Your task to perform on an android device: add a label to a message in the gmail app Image 0: 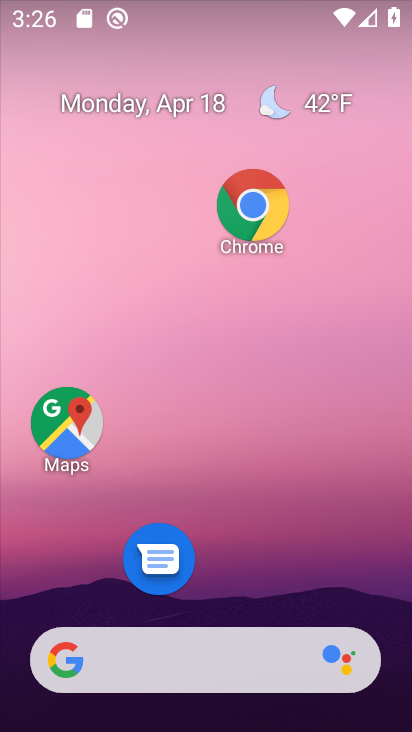
Step 0: drag from (261, 450) to (301, 305)
Your task to perform on an android device: add a label to a message in the gmail app Image 1: 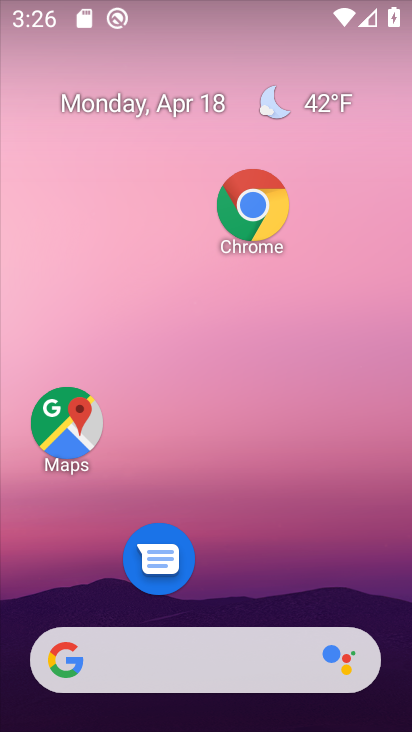
Step 1: drag from (245, 447) to (263, 175)
Your task to perform on an android device: add a label to a message in the gmail app Image 2: 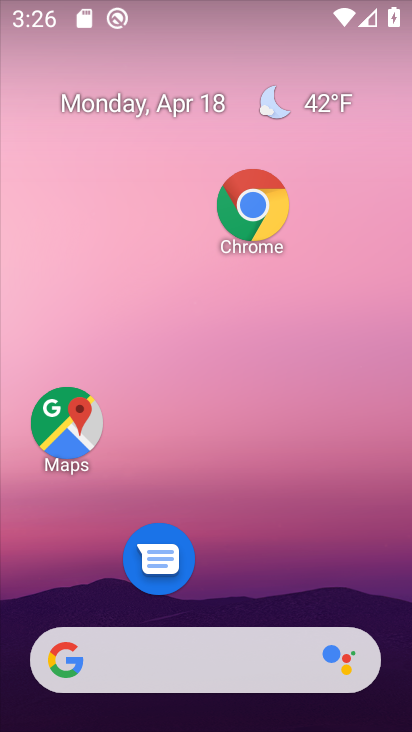
Step 2: drag from (72, 463) to (98, 164)
Your task to perform on an android device: add a label to a message in the gmail app Image 3: 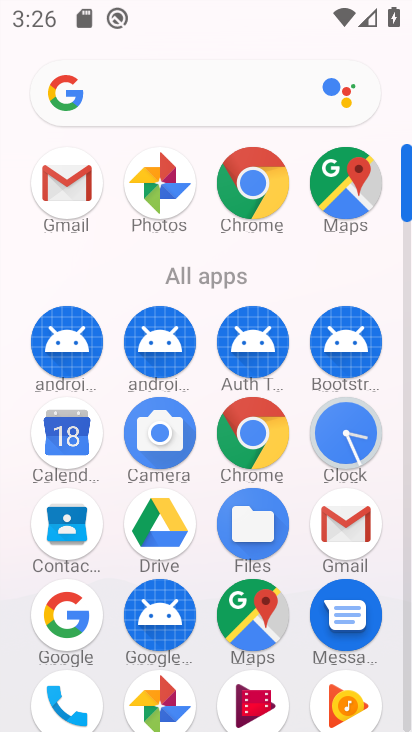
Step 3: click (54, 178)
Your task to perform on an android device: add a label to a message in the gmail app Image 4: 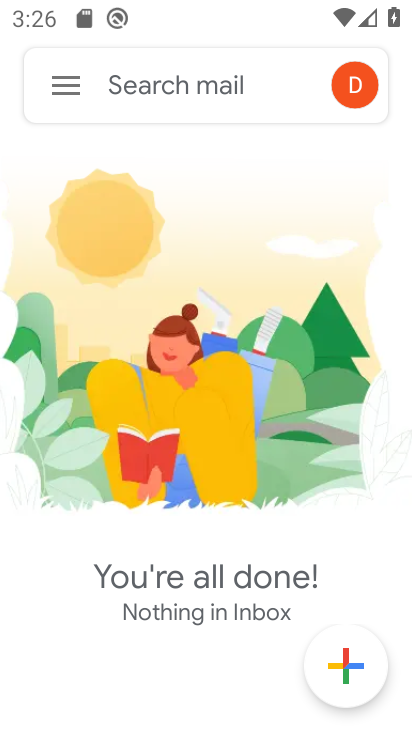
Step 4: click (54, 80)
Your task to perform on an android device: add a label to a message in the gmail app Image 5: 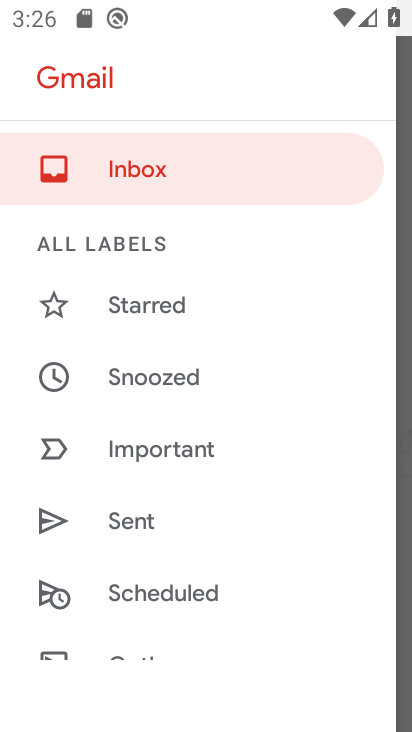
Step 5: drag from (144, 529) to (166, 145)
Your task to perform on an android device: add a label to a message in the gmail app Image 6: 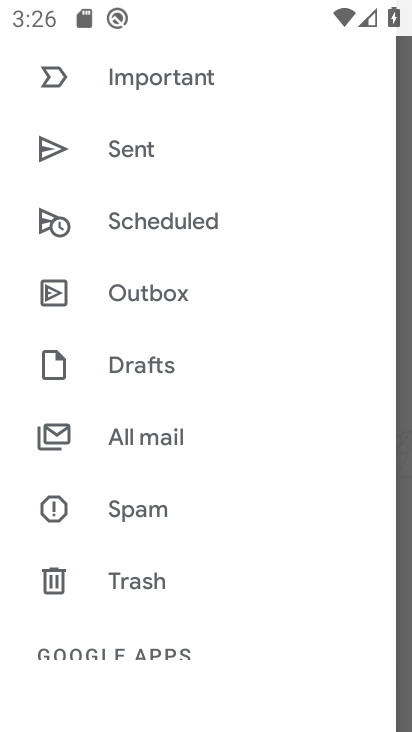
Step 6: click (132, 442)
Your task to perform on an android device: add a label to a message in the gmail app Image 7: 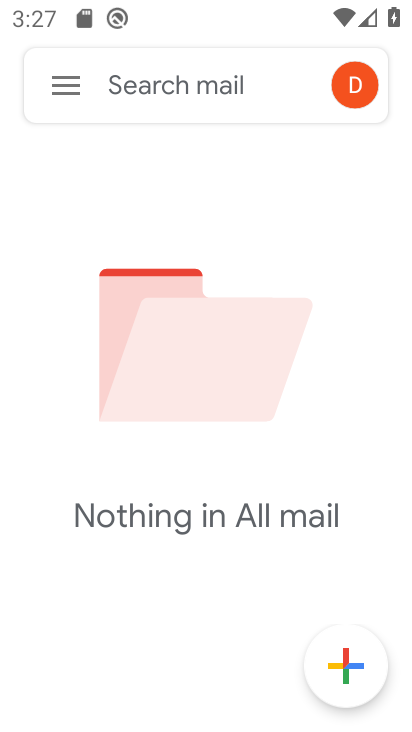
Step 7: task complete